Your task to perform on an android device: set the stopwatch Image 0: 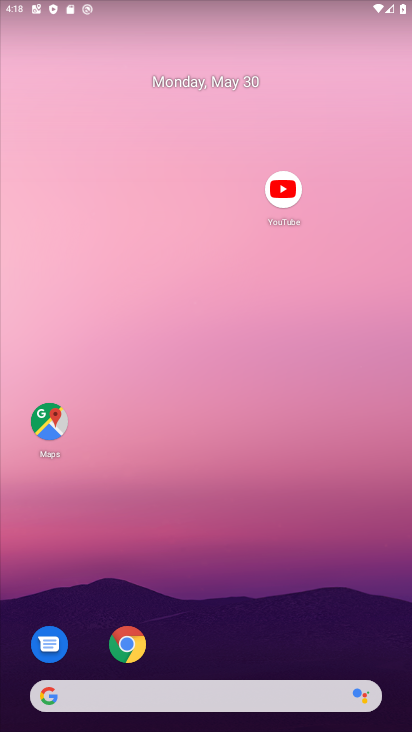
Step 0: drag from (201, 635) to (190, 50)
Your task to perform on an android device: set the stopwatch Image 1: 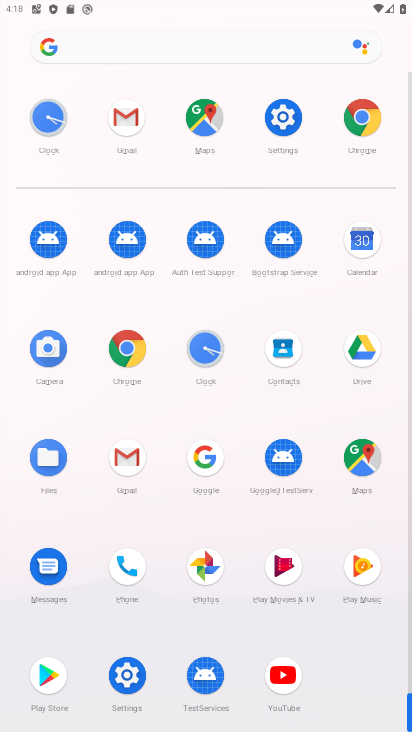
Step 1: click (210, 350)
Your task to perform on an android device: set the stopwatch Image 2: 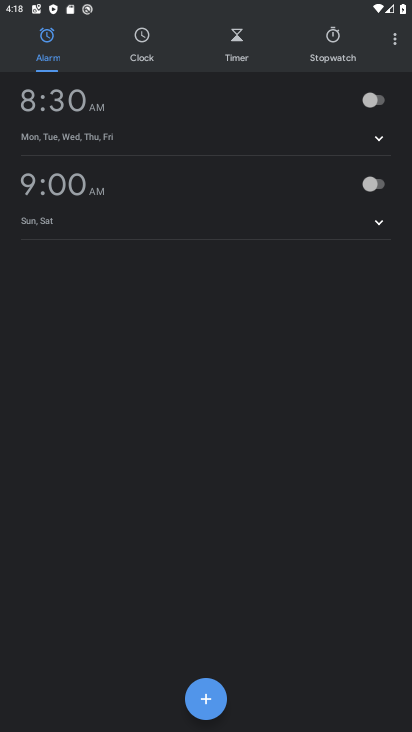
Step 2: click (336, 39)
Your task to perform on an android device: set the stopwatch Image 3: 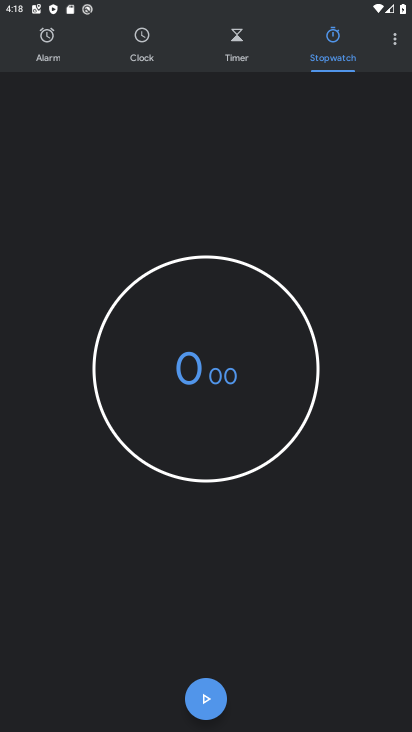
Step 3: click (205, 709)
Your task to perform on an android device: set the stopwatch Image 4: 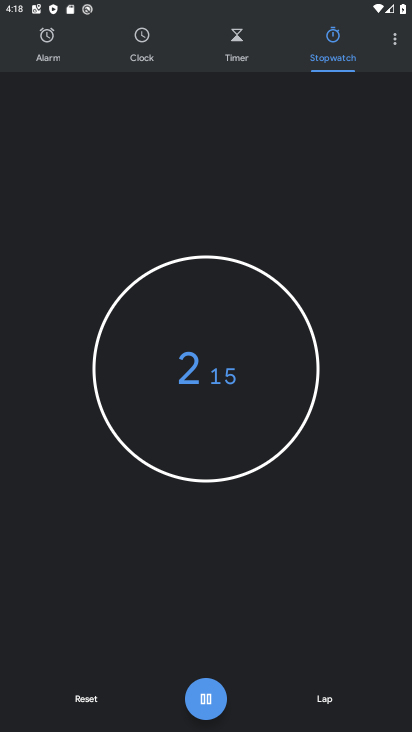
Step 4: task complete